Your task to perform on an android device: toggle location history Image 0: 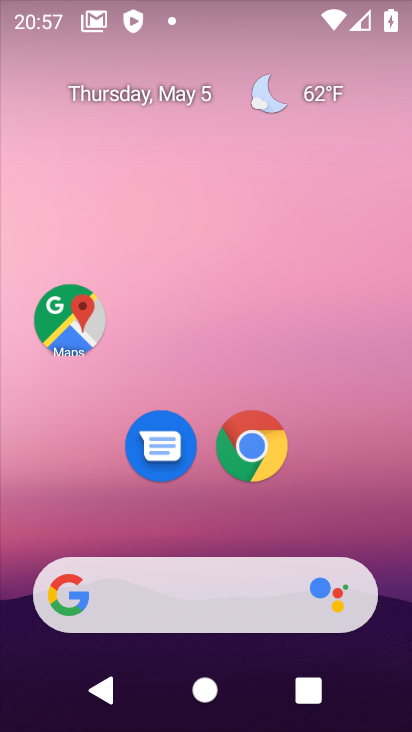
Step 0: drag from (291, 626) to (265, 156)
Your task to perform on an android device: toggle location history Image 1: 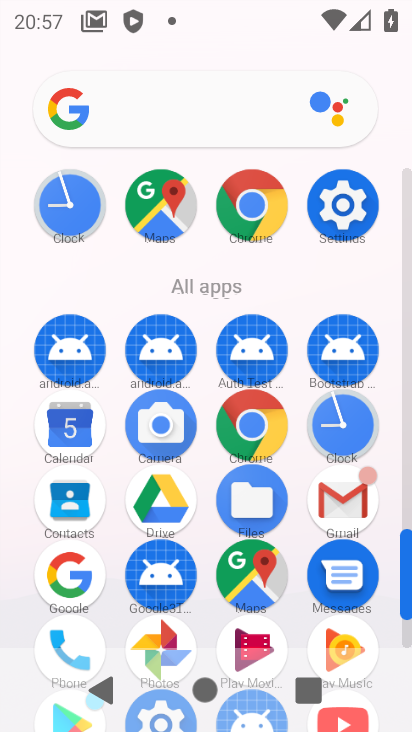
Step 1: click (362, 217)
Your task to perform on an android device: toggle location history Image 2: 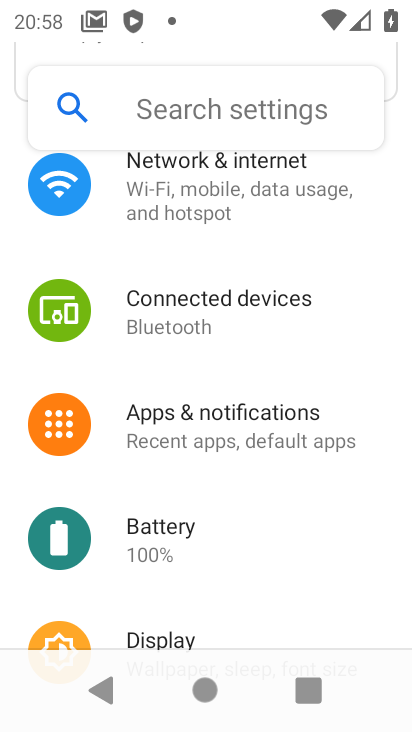
Step 2: click (197, 93)
Your task to perform on an android device: toggle location history Image 3: 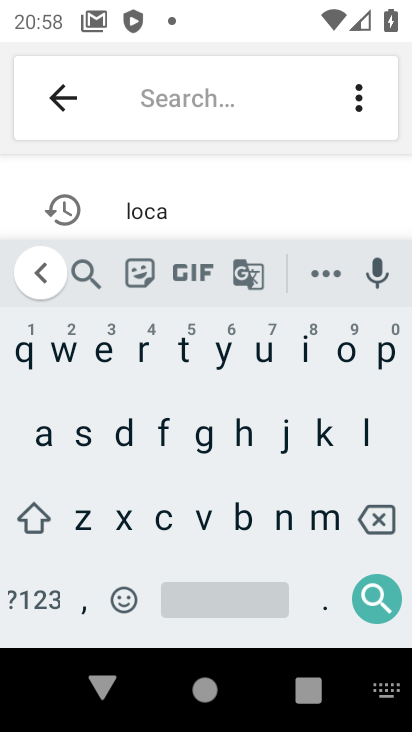
Step 3: click (364, 432)
Your task to perform on an android device: toggle location history Image 4: 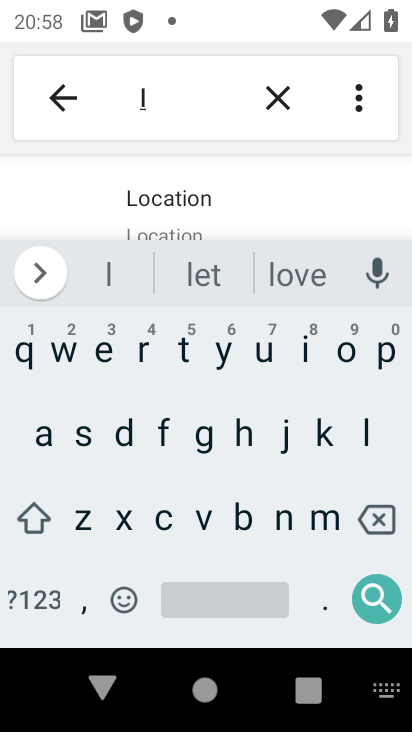
Step 4: click (206, 218)
Your task to perform on an android device: toggle location history Image 5: 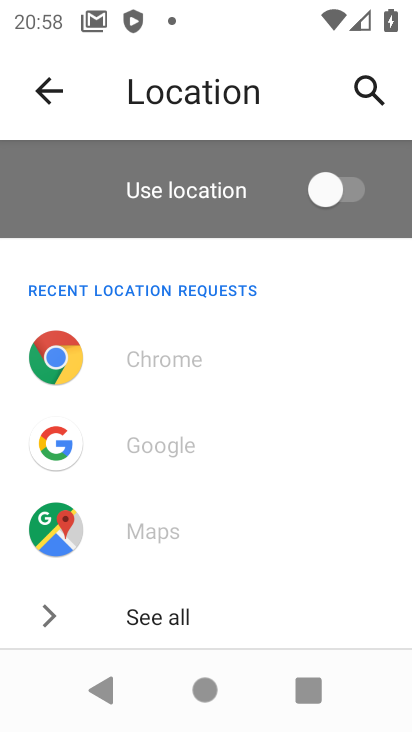
Step 5: drag from (165, 498) to (249, 162)
Your task to perform on an android device: toggle location history Image 6: 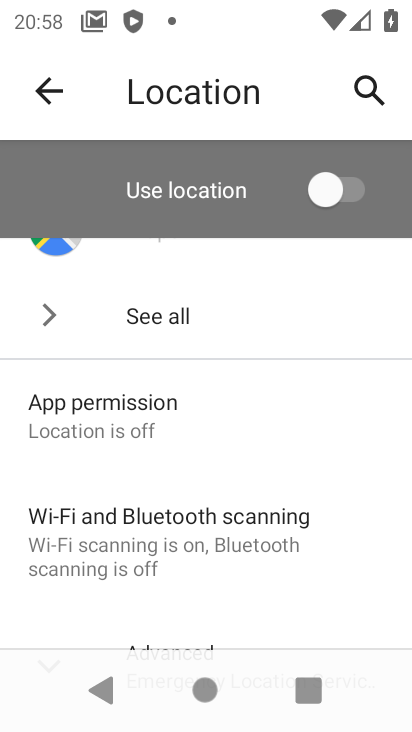
Step 6: drag from (143, 524) to (210, 375)
Your task to perform on an android device: toggle location history Image 7: 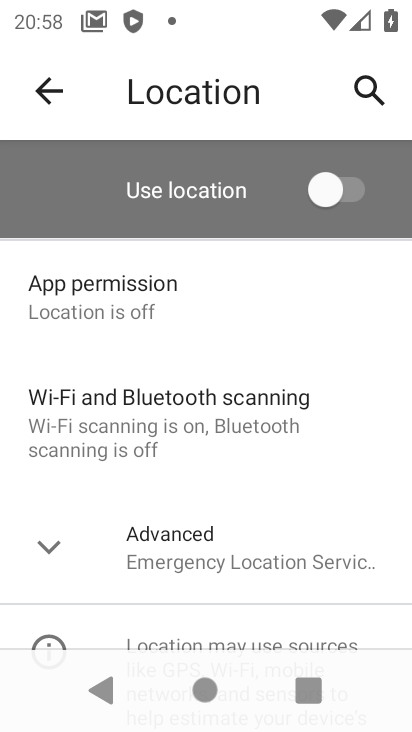
Step 7: click (147, 567)
Your task to perform on an android device: toggle location history Image 8: 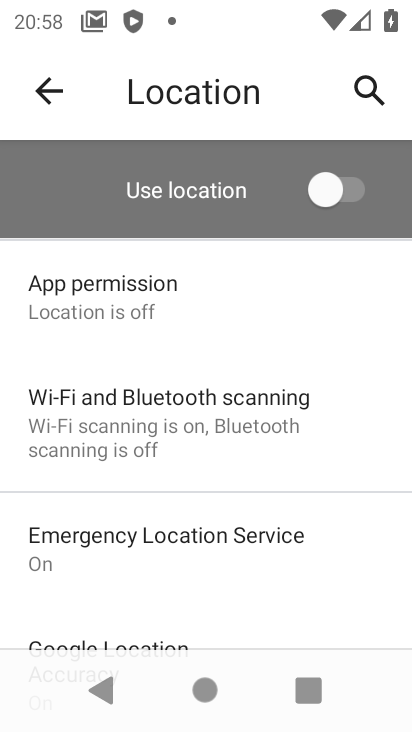
Step 8: drag from (171, 550) to (222, 333)
Your task to perform on an android device: toggle location history Image 9: 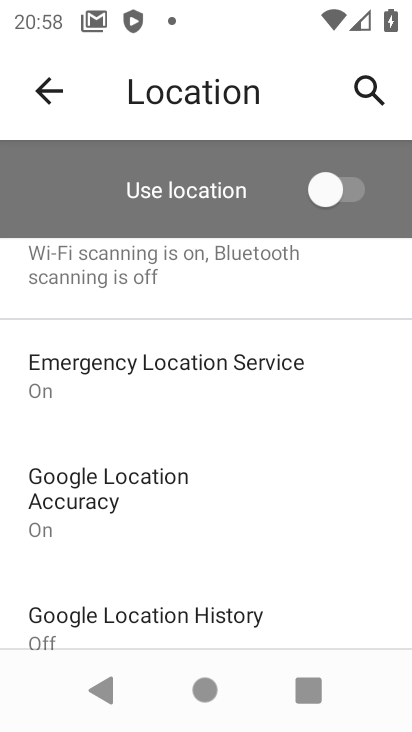
Step 9: drag from (209, 591) to (220, 514)
Your task to perform on an android device: toggle location history Image 10: 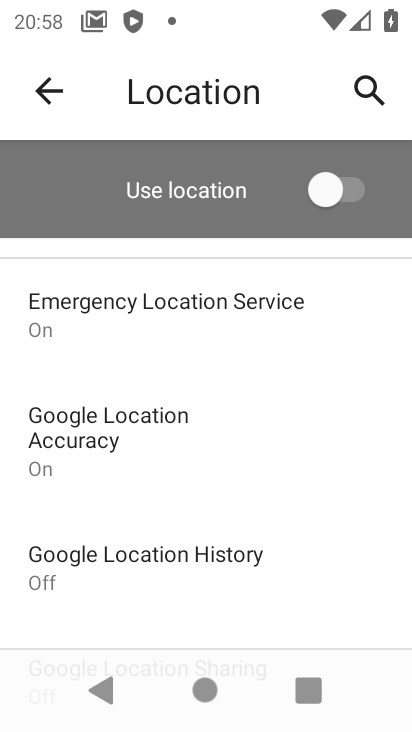
Step 10: click (176, 566)
Your task to perform on an android device: toggle location history Image 11: 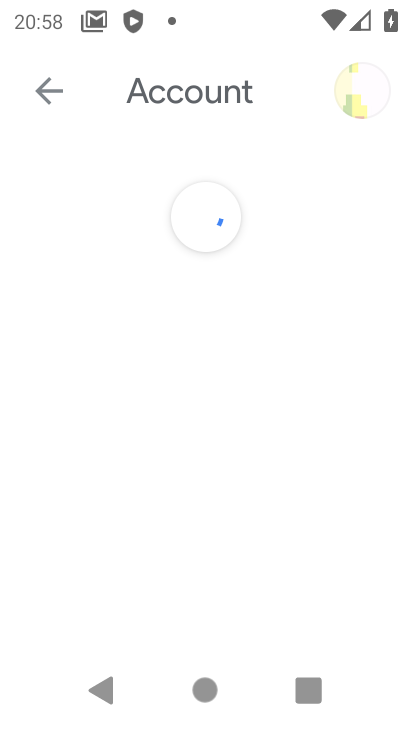
Step 11: task complete